Your task to perform on an android device: Open Reddit.com Image 0: 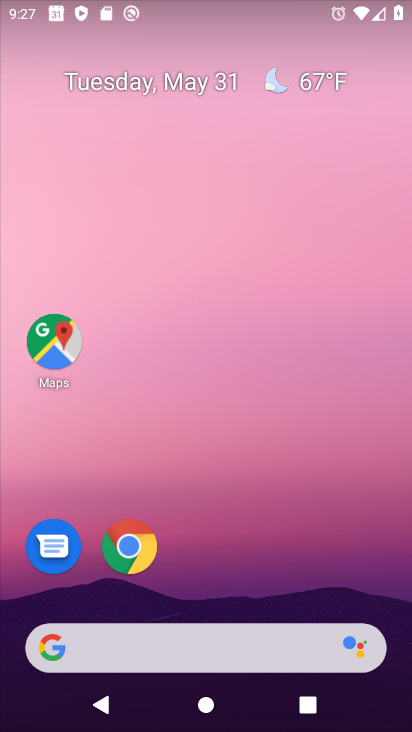
Step 0: click (132, 545)
Your task to perform on an android device: Open Reddit.com Image 1: 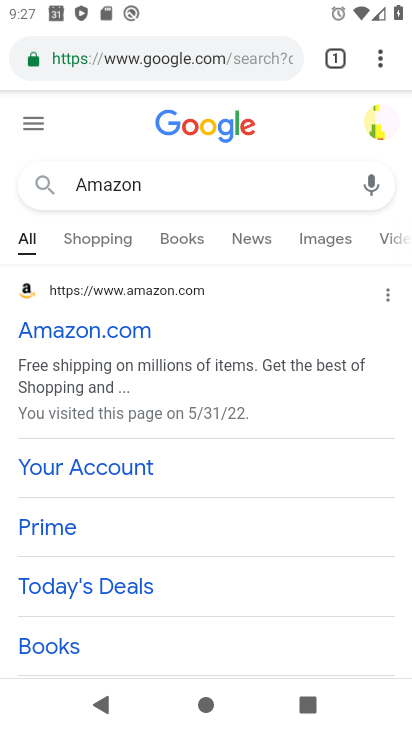
Step 1: click (210, 52)
Your task to perform on an android device: Open Reddit.com Image 2: 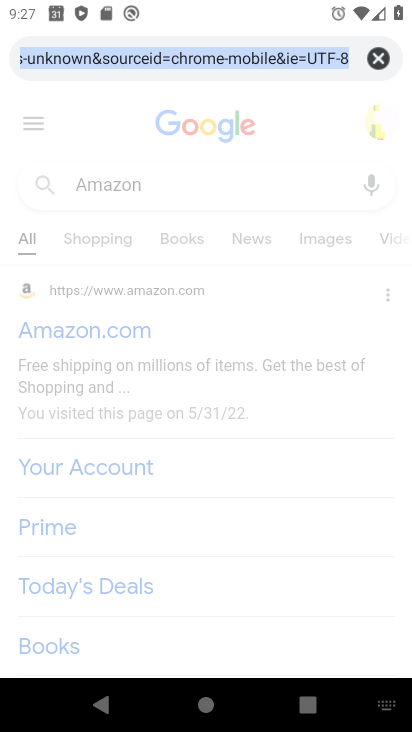
Step 2: type "Reddit.com"
Your task to perform on an android device: Open Reddit.com Image 3: 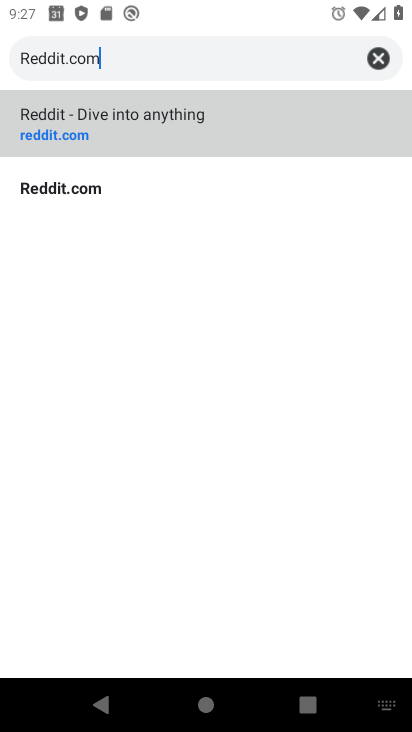
Step 3: click (111, 129)
Your task to perform on an android device: Open Reddit.com Image 4: 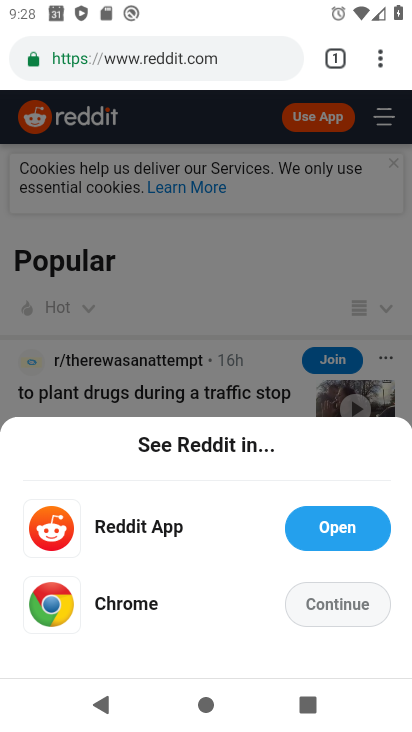
Step 4: task complete